Your task to perform on an android device: Empty the shopping cart on amazon. Search for beats solo 3 on amazon, select the first entry, add it to the cart, then select checkout. Image 0: 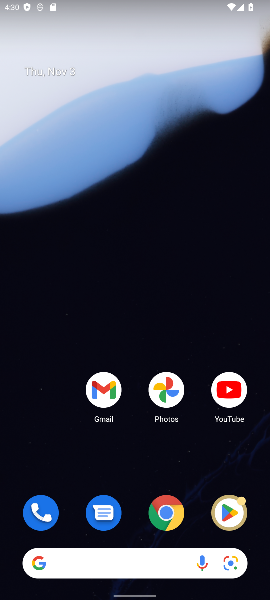
Step 0: click (170, 517)
Your task to perform on an android device: Empty the shopping cart on amazon. Search for beats solo 3 on amazon, select the first entry, add it to the cart, then select checkout. Image 1: 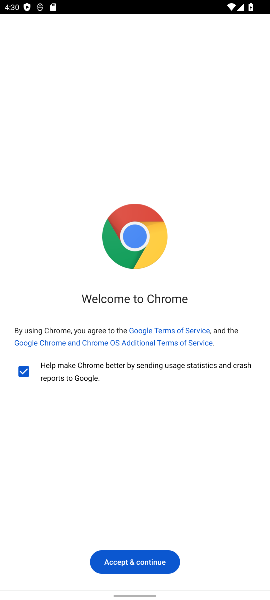
Step 1: click (132, 562)
Your task to perform on an android device: Empty the shopping cart on amazon. Search for beats solo 3 on amazon, select the first entry, add it to the cart, then select checkout. Image 2: 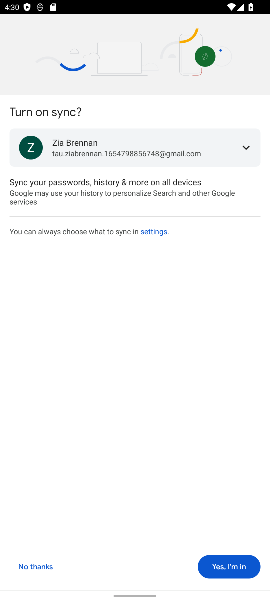
Step 2: click (244, 564)
Your task to perform on an android device: Empty the shopping cart on amazon. Search for beats solo 3 on amazon, select the first entry, add it to the cart, then select checkout. Image 3: 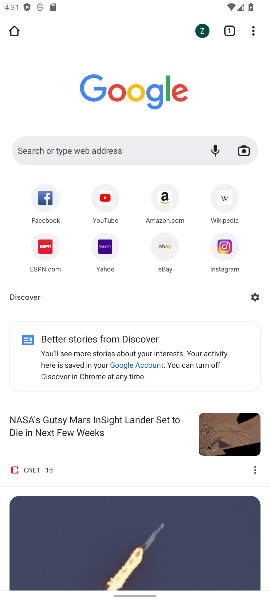
Step 3: click (114, 150)
Your task to perform on an android device: Empty the shopping cart on amazon. Search for beats solo 3 on amazon, select the first entry, add it to the cart, then select checkout. Image 4: 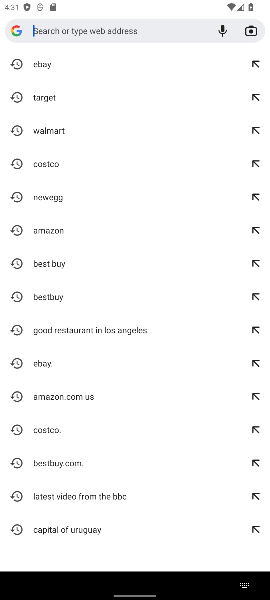
Step 4: type "amazon basics triple a battery"
Your task to perform on an android device: Empty the shopping cart on amazon. Search for beats solo 3 on amazon, select the first entry, add it to the cart, then select checkout. Image 5: 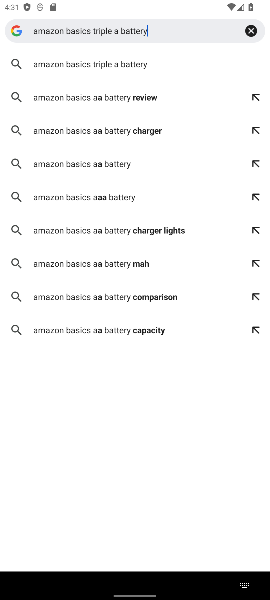
Step 5: click (127, 61)
Your task to perform on an android device: Empty the shopping cart on amazon. Search for beats solo 3 on amazon, select the first entry, add it to the cart, then select checkout. Image 6: 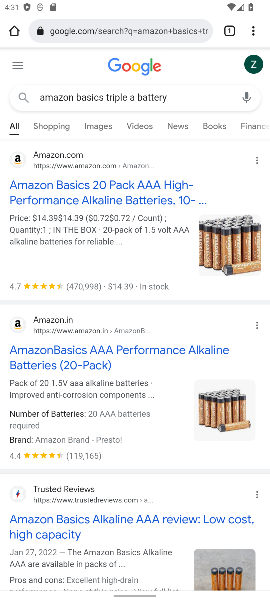
Step 6: click (91, 201)
Your task to perform on an android device: Empty the shopping cart on amazon. Search for beats solo 3 on amazon, select the first entry, add it to the cart, then select checkout. Image 7: 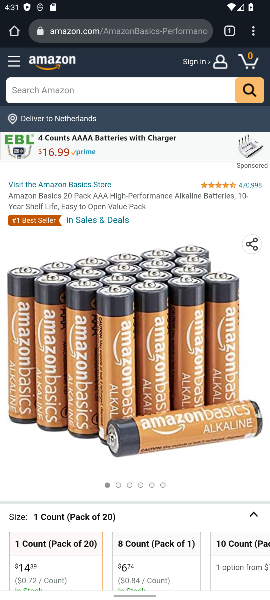
Step 7: drag from (184, 507) to (172, 151)
Your task to perform on an android device: Empty the shopping cart on amazon. Search for beats solo 3 on amazon, select the first entry, add it to the cart, then select checkout. Image 8: 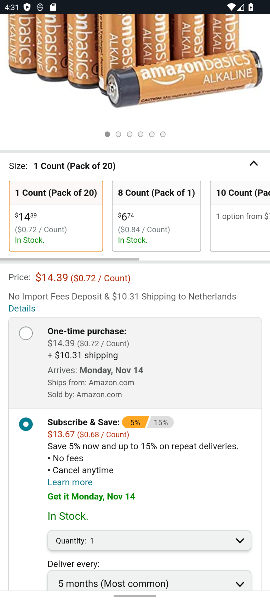
Step 8: drag from (165, 479) to (188, 184)
Your task to perform on an android device: Empty the shopping cart on amazon. Search for beats solo 3 on amazon, select the first entry, add it to the cart, then select checkout. Image 9: 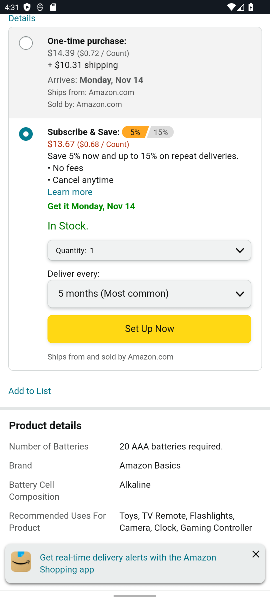
Step 9: click (35, 392)
Your task to perform on an android device: Empty the shopping cart on amazon. Search for beats solo 3 on amazon, select the first entry, add it to the cart, then select checkout. Image 10: 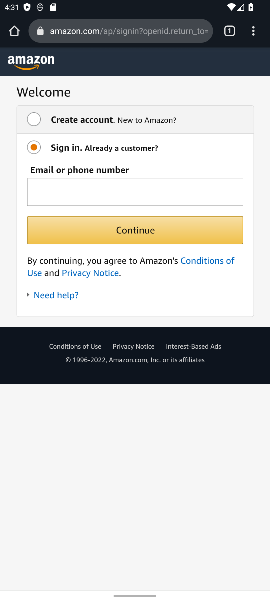
Step 10: task complete